Your task to perform on an android device: see sites visited before in the chrome app Image 0: 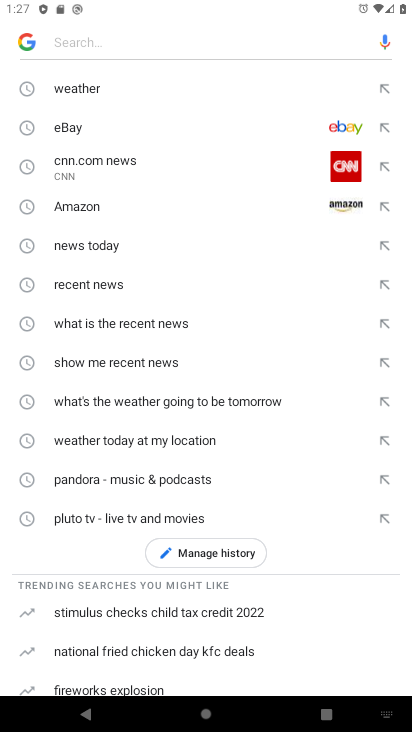
Step 0: press home button
Your task to perform on an android device: see sites visited before in the chrome app Image 1: 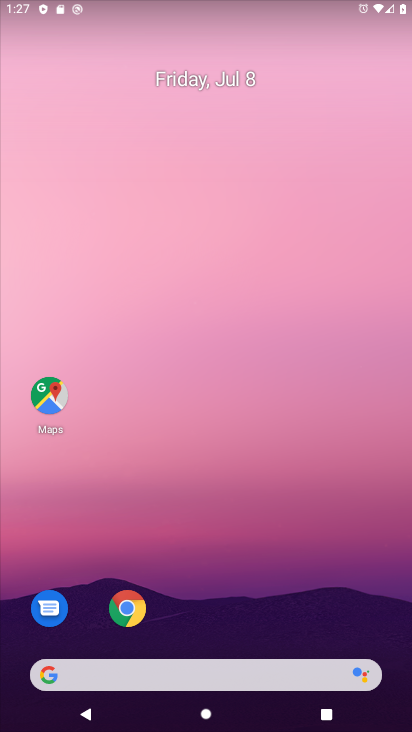
Step 1: click (129, 600)
Your task to perform on an android device: see sites visited before in the chrome app Image 2: 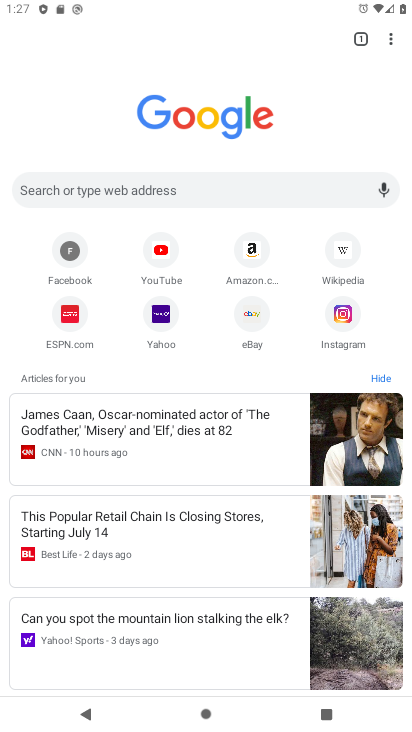
Step 2: click (401, 36)
Your task to perform on an android device: see sites visited before in the chrome app Image 3: 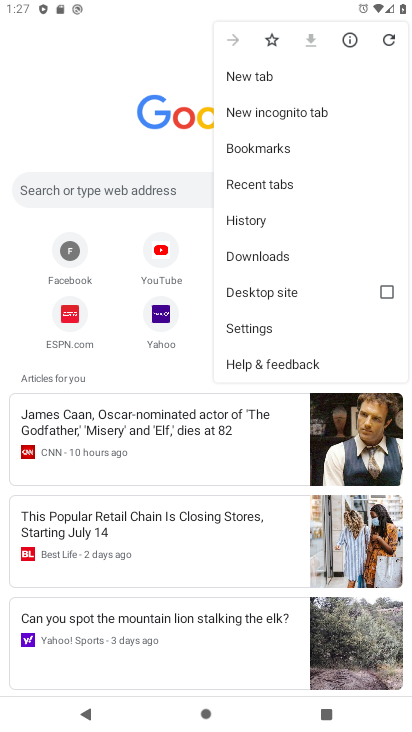
Step 3: click (300, 338)
Your task to perform on an android device: see sites visited before in the chrome app Image 4: 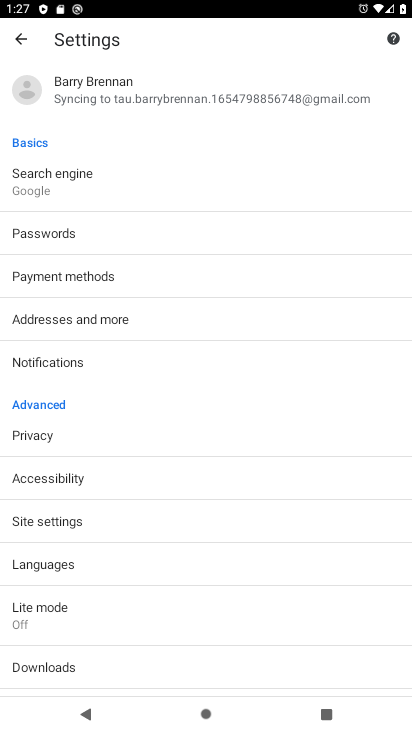
Step 4: drag from (100, 661) to (164, 159)
Your task to perform on an android device: see sites visited before in the chrome app Image 5: 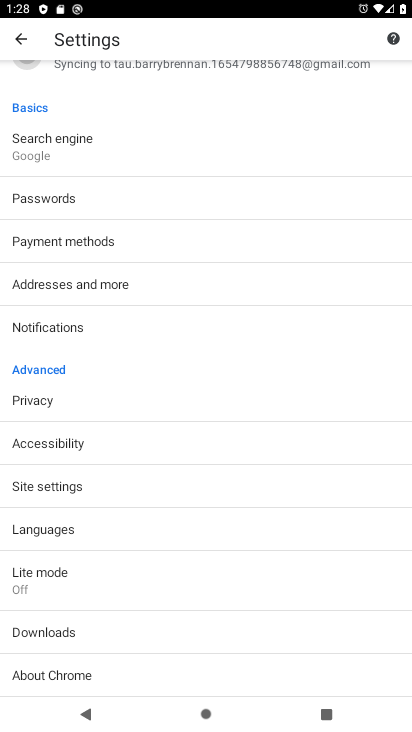
Step 5: click (27, 46)
Your task to perform on an android device: see sites visited before in the chrome app Image 6: 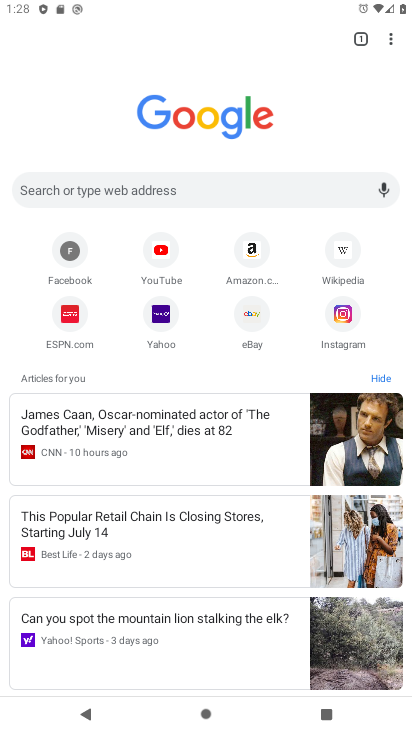
Step 6: click (390, 38)
Your task to perform on an android device: see sites visited before in the chrome app Image 7: 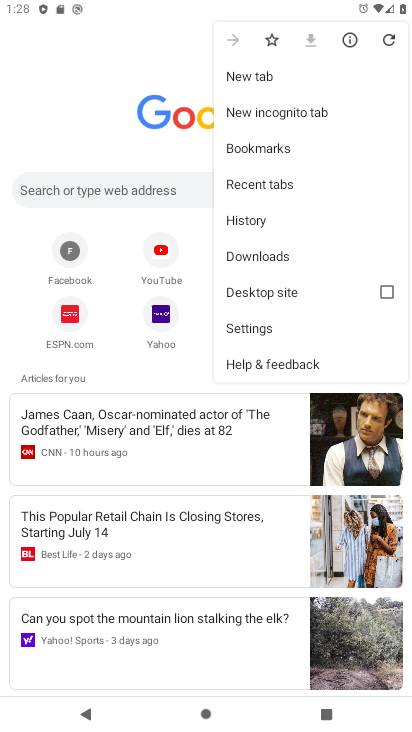
Step 7: click (278, 185)
Your task to perform on an android device: see sites visited before in the chrome app Image 8: 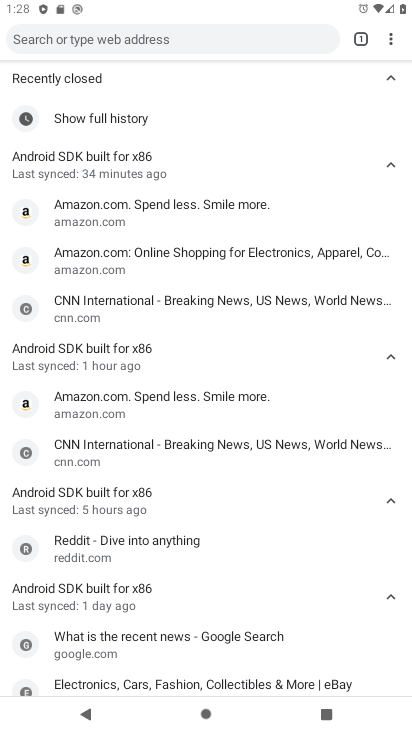
Step 8: task complete